Your task to perform on an android device: open app "Expedia: Hotels, Flights & Car" (install if not already installed) Image 0: 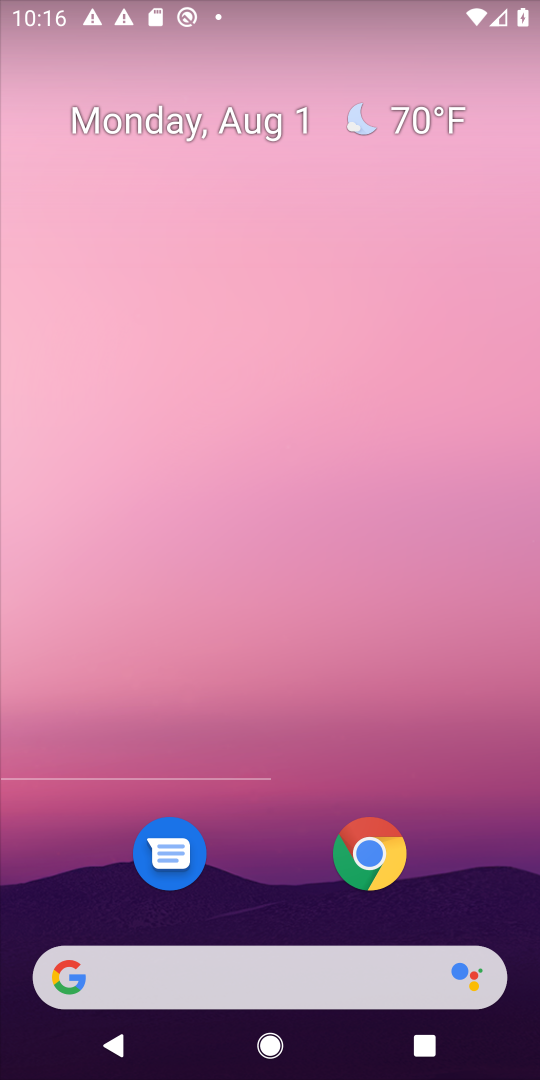
Step 0: click (453, 37)
Your task to perform on an android device: open app "Expedia: Hotels, Flights & Car" (install if not already installed) Image 1: 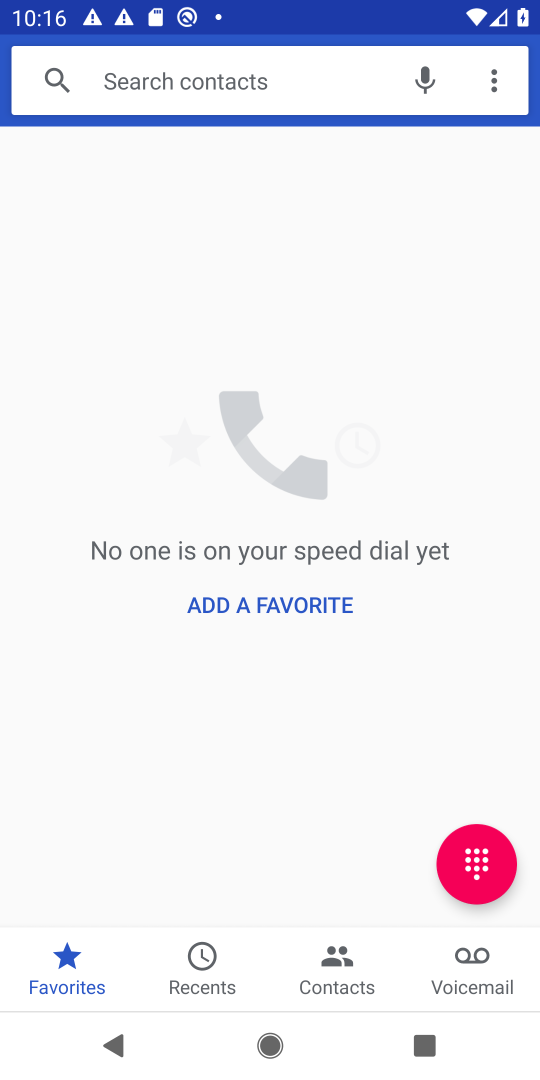
Step 1: drag from (261, 875) to (345, 211)
Your task to perform on an android device: open app "Expedia: Hotels, Flights & Car" (install if not already installed) Image 2: 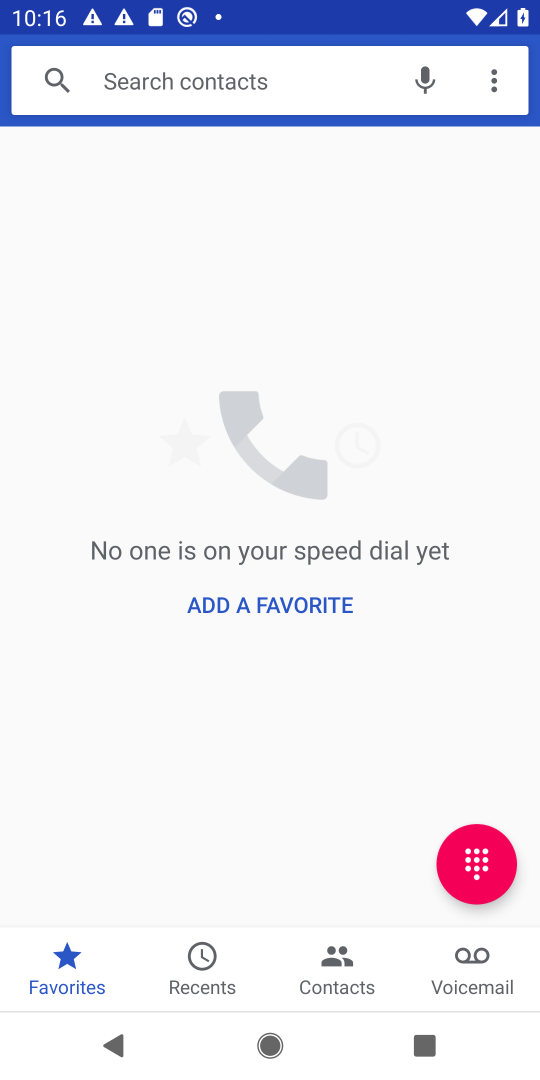
Step 2: press home button
Your task to perform on an android device: open app "Expedia: Hotels, Flights & Car" (install if not already installed) Image 3: 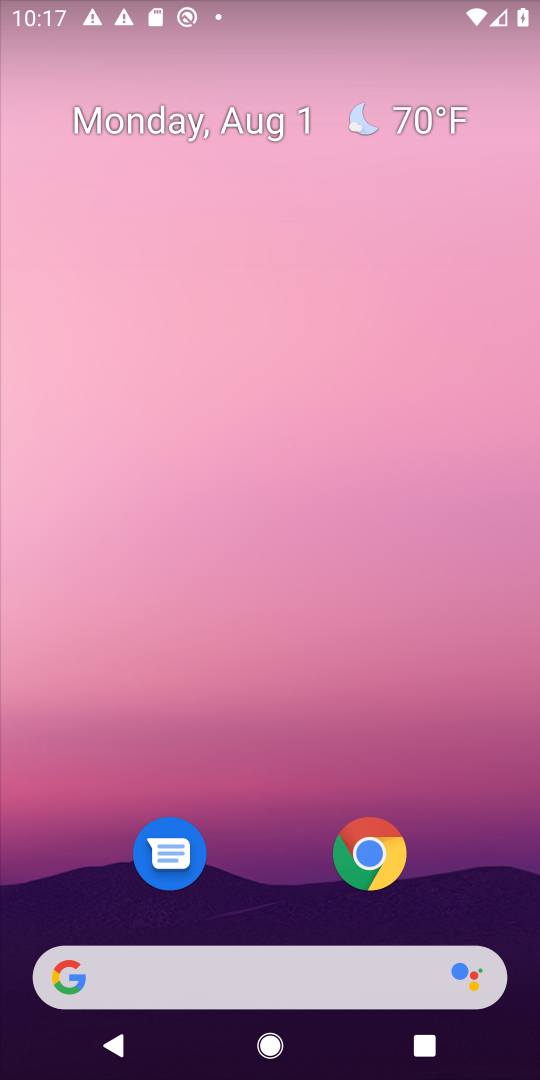
Step 3: drag from (335, 669) to (453, 111)
Your task to perform on an android device: open app "Expedia: Hotels, Flights & Car" (install if not already installed) Image 4: 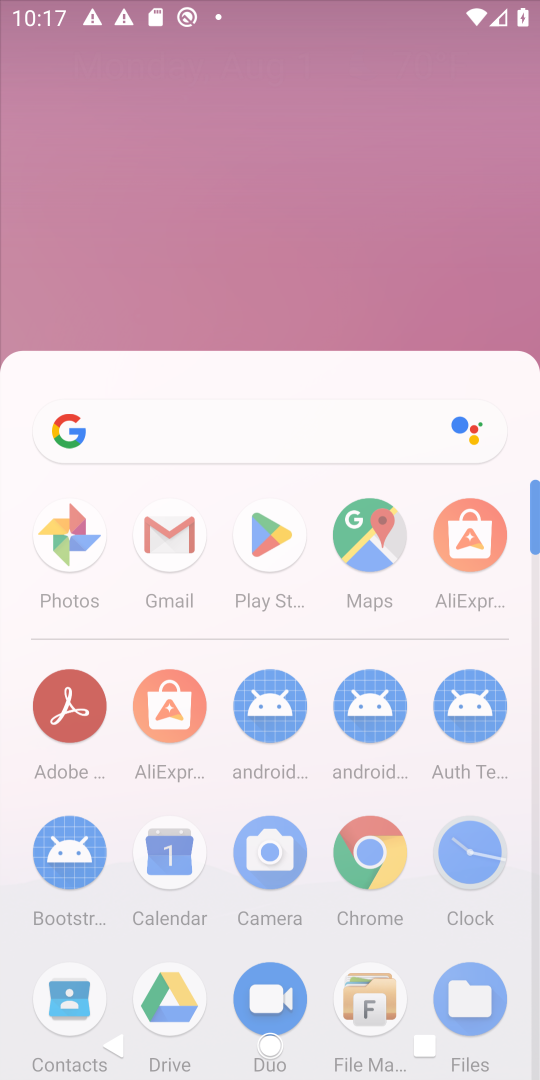
Step 4: drag from (265, 892) to (328, 255)
Your task to perform on an android device: open app "Expedia: Hotels, Flights & Car" (install if not already installed) Image 5: 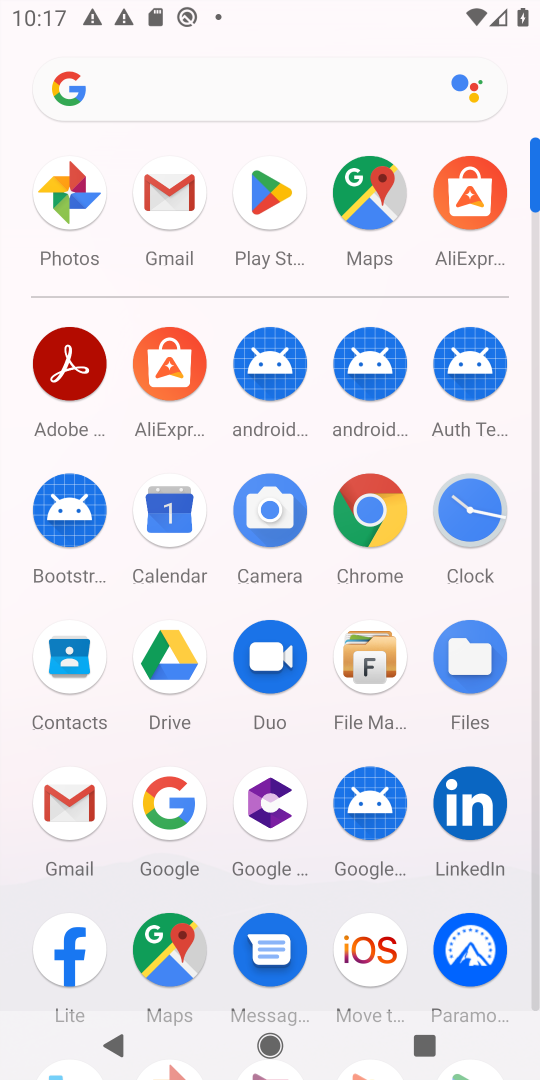
Step 5: click (277, 181)
Your task to perform on an android device: open app "Expedia: Hotels, Flights & Car" (install if not already installed) Image 6: 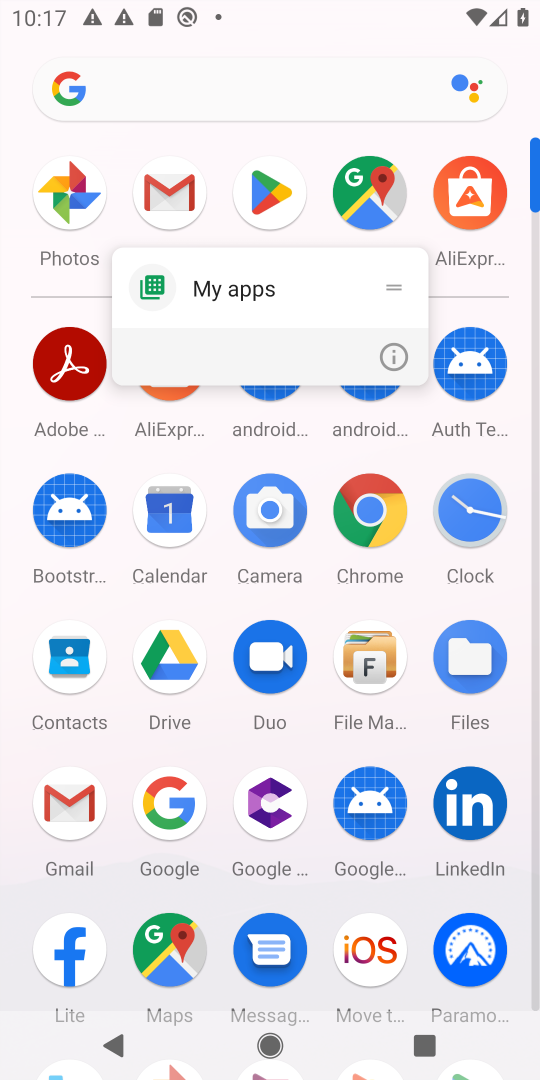
Step 6: click (399, 354)
Your task to perform on an android device: open app "Expedia: Hotels, Flights & Car" (install if not already installed) Image 7: 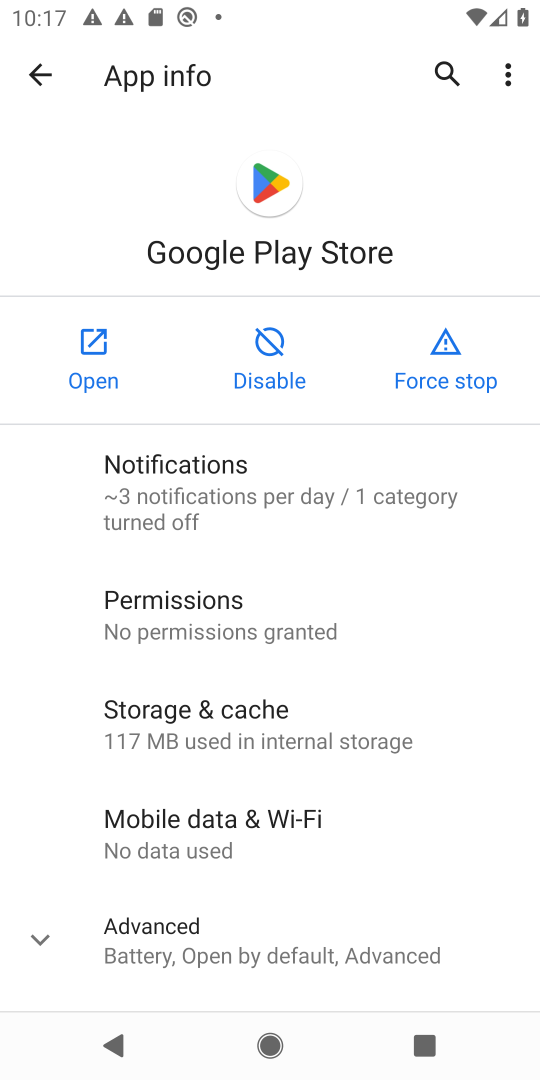
Step 7: click (91, 353)
Your task to perform on an android device: open app "Expedia: Hotels, Flights & Car" (install if not already installed) Image 8: 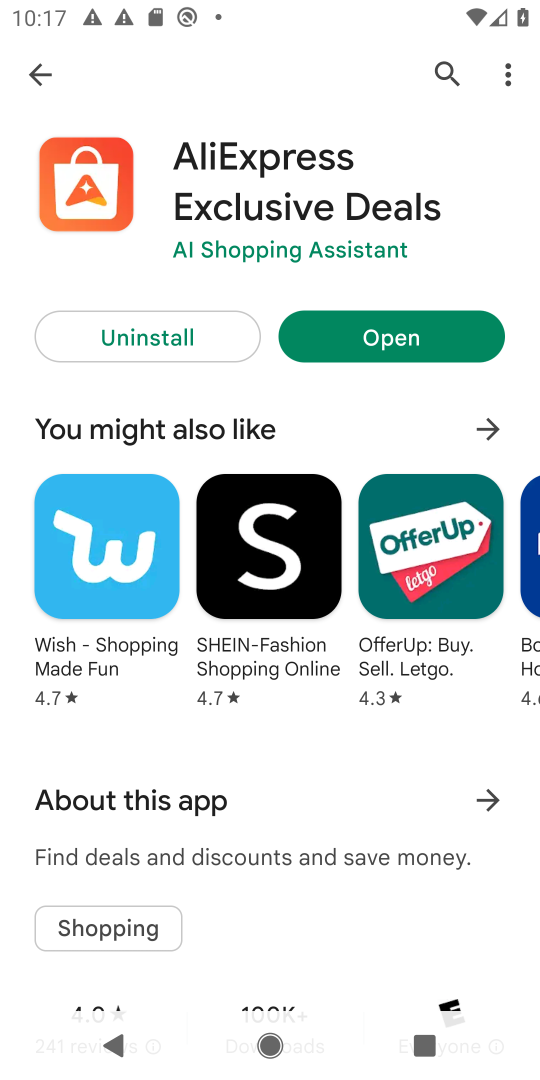
Step 8: click (446, 67)
Your task to perform on an android device: open app "Expedia: Hotels, Flights & Car" (install if not already installed) Image 9: 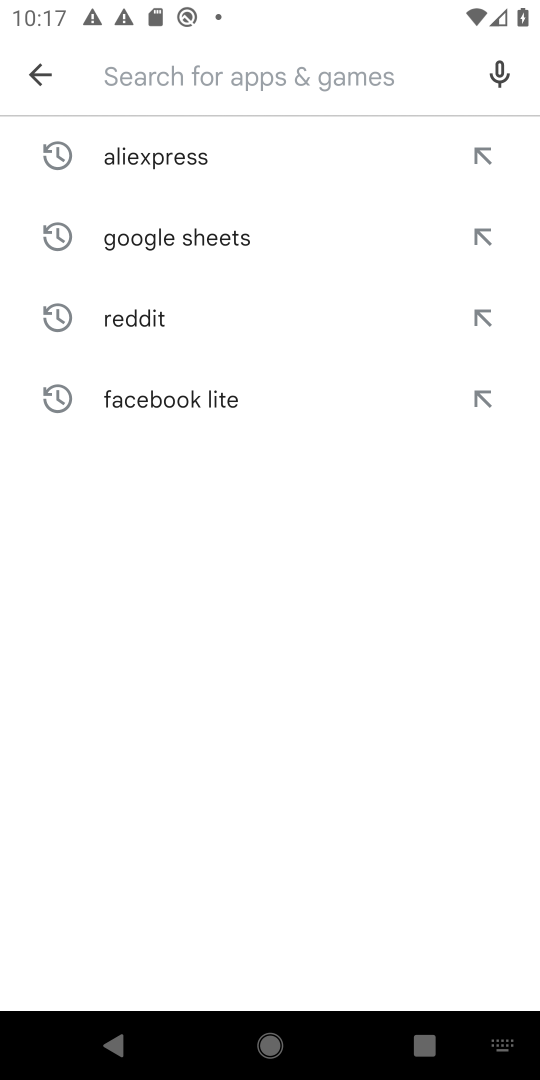
Step 9: type "Expedia: Hotels, Flights & Car"
Your task to perform on an android device: open app "Expedia: Hotels, Flights & Car" (install if not already installed) Image 10: 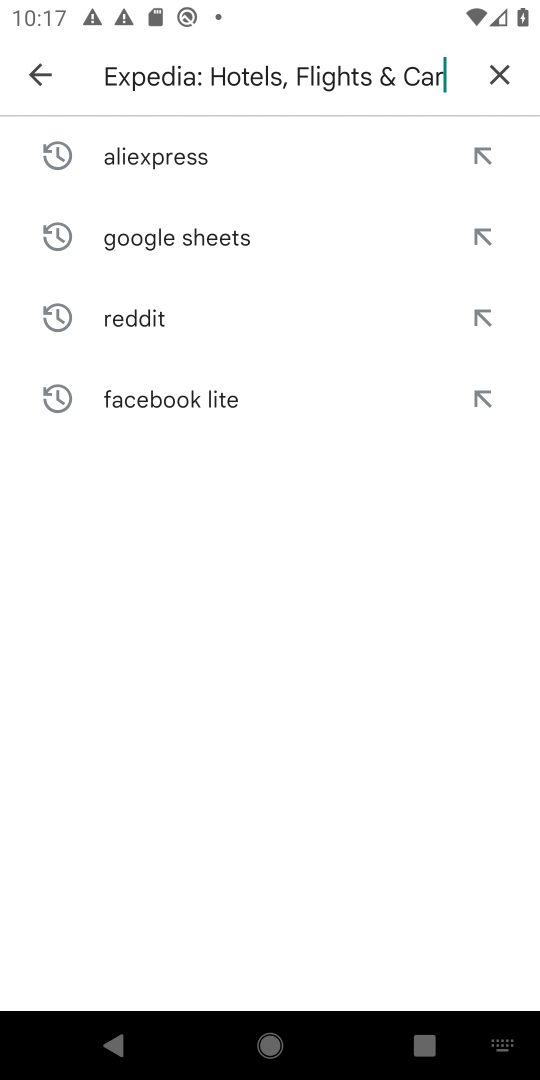
Step 10: type ""
Your task to perform on an android device: open app "Expedia: Hotels, Flights & Car" (install if not already installed) Image 11: 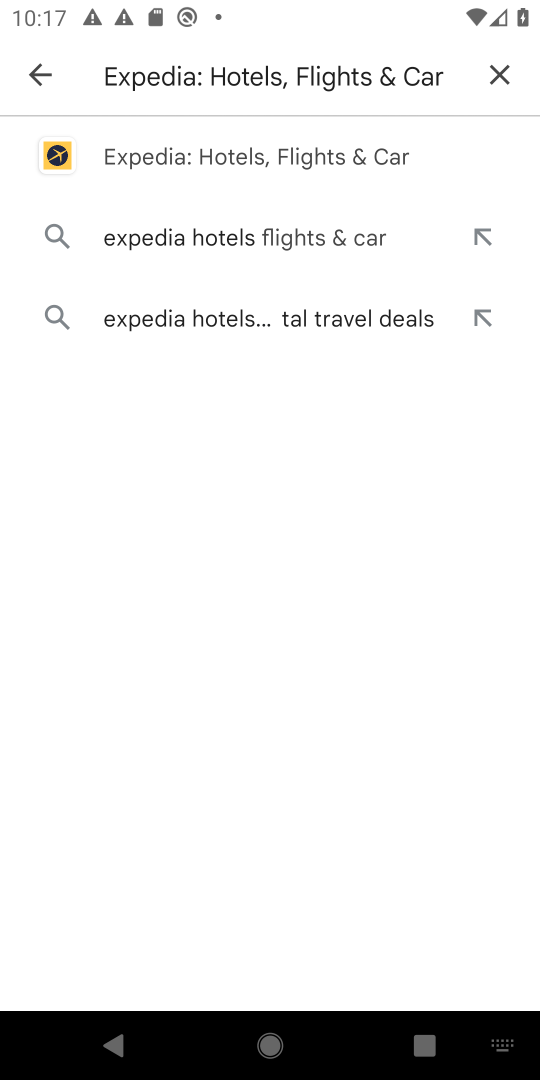
Step 11: click (176, 150)
Your task to perform on an android device: open app "Expedia: Hotels, Flights & Car" (install if not already installed) Image 12: 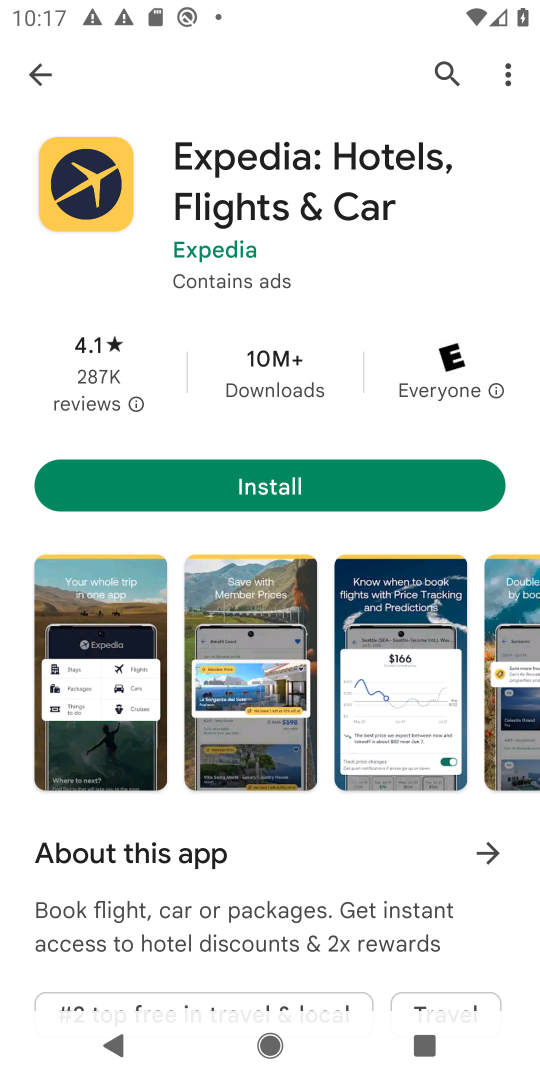
Step 12: click (230, 482)
Your task to perform on an android device: open app "Expedia: Hotels, Flights & Car" (install if not already installed) Image 13: 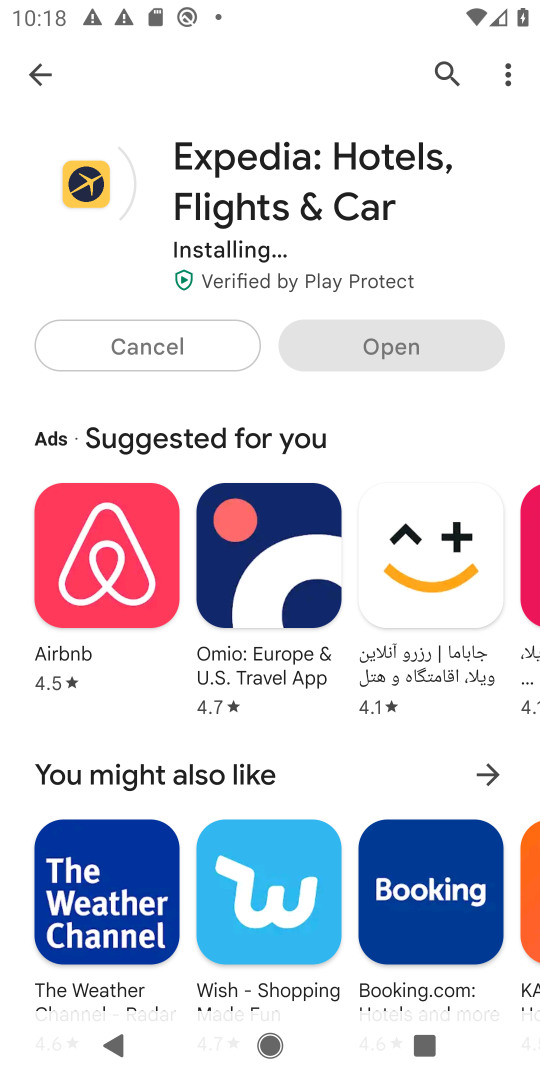
Step 13: drag from (287, 645) to (343, 764)
Your task to perform on an android device: open app "Expedia: Hotels, Flights & Car" (install if not already installed) Image 14: 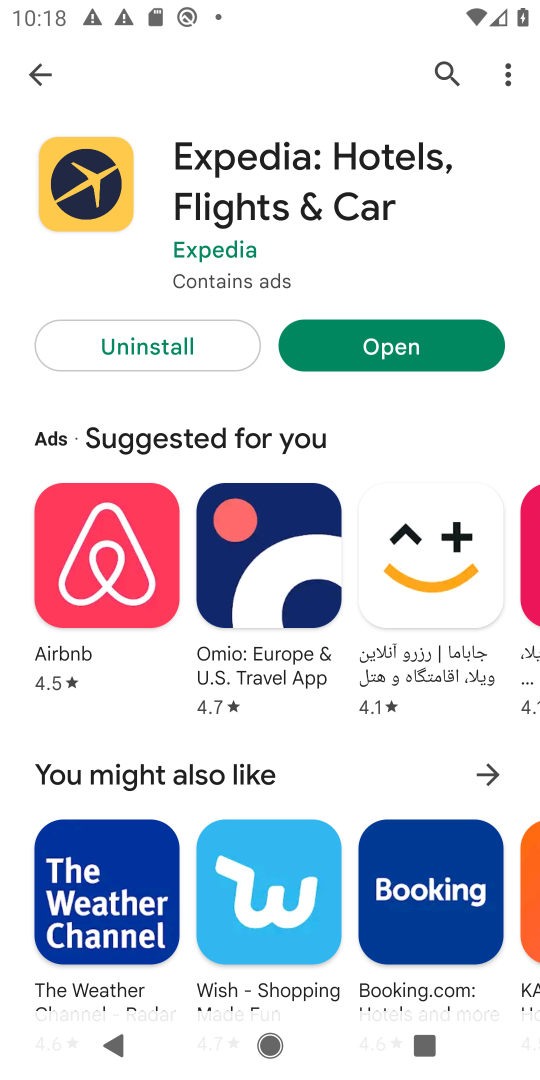
Step 14: click (377, 346)
Your task to perform on an android device: open app "Expedia: Hotels, Flights & Car" (install if not already installed) Image 15: 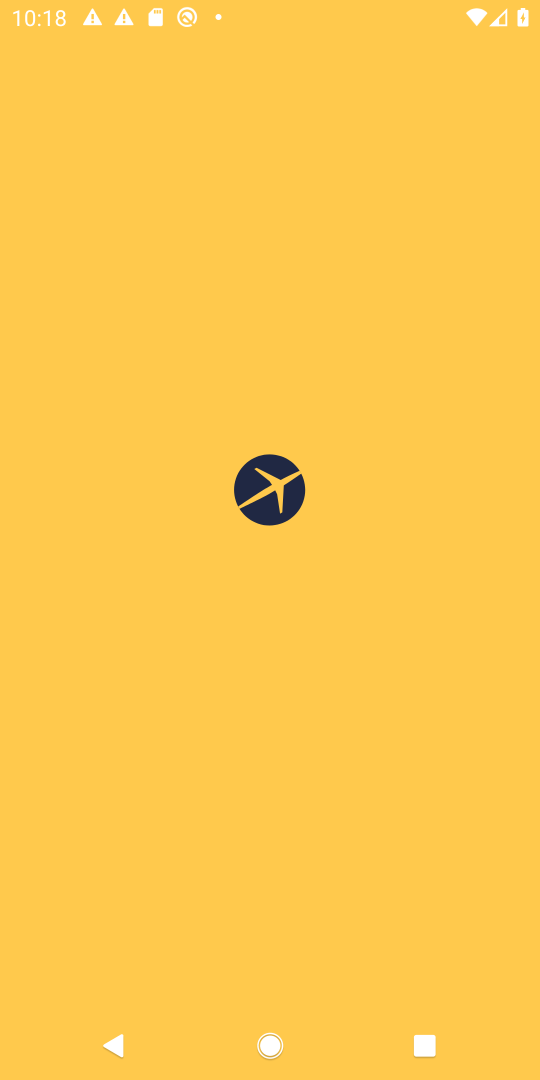
Step 15: task complete